Your task to perform on an android device: Open internet settings Image 0: 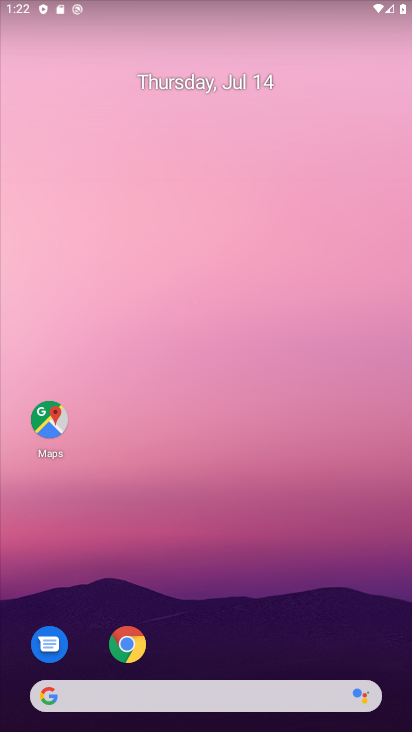
Step 0: drag from (183, 638) to (218, 167)
Your task to perform on an android device: Open internet settings Image 1: 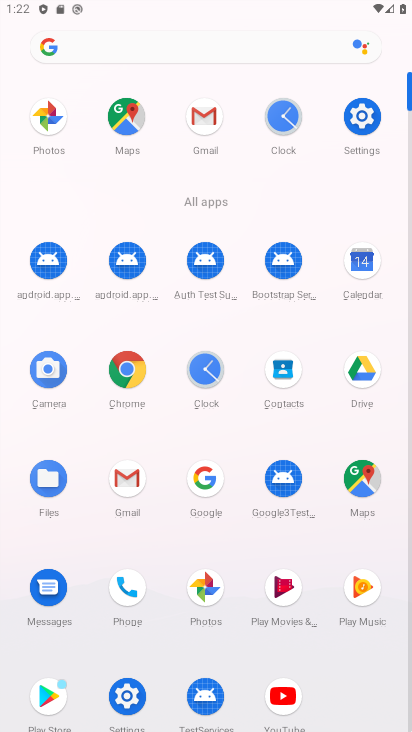
Step 1: click (130, 697)
Your task to perform on an android device: Open internet settings Image 2: 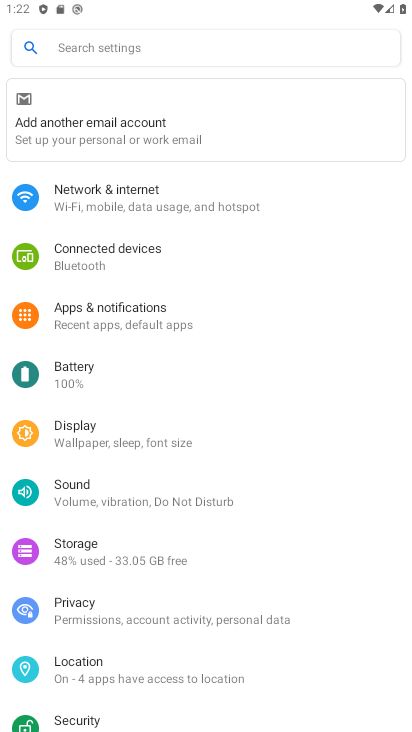
Step 2: click (190, 201)
Your task to perform on an android device: Open internet settings Image 3: 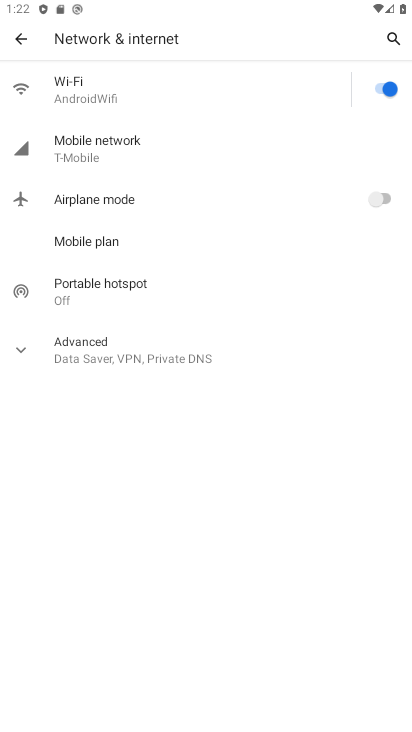
Step 3: click (179, 152)
Your task to perform on an android device: Open internet settings Image 4: 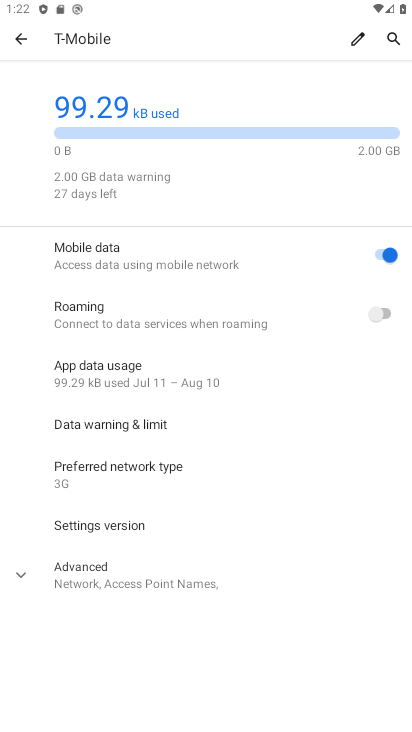
Step 4: task complete